Your task to perform on an android device: turn off airplane mode Image 0: 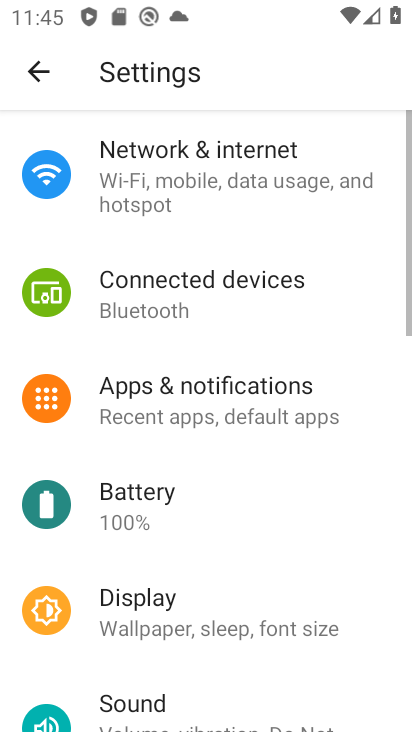
Step 0: drag from (378, 554) to (388, 259)
Your task to perform on an android device: turn off airplane mode Image 1: 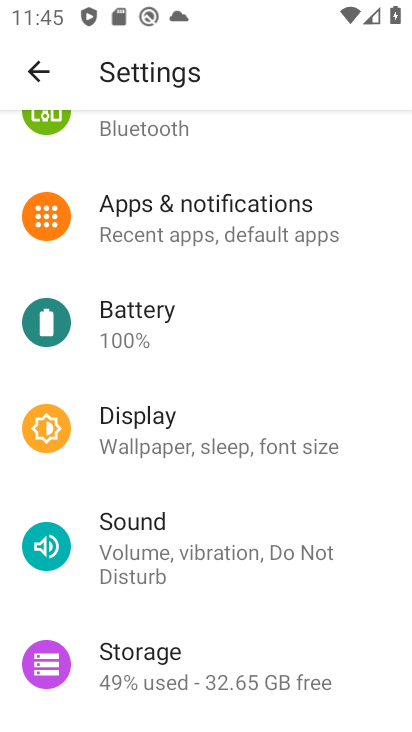
Step 1: drag from (335, 345) to (316, 671)
Your task to perform on an android device: turn off airplane mode Image 2: 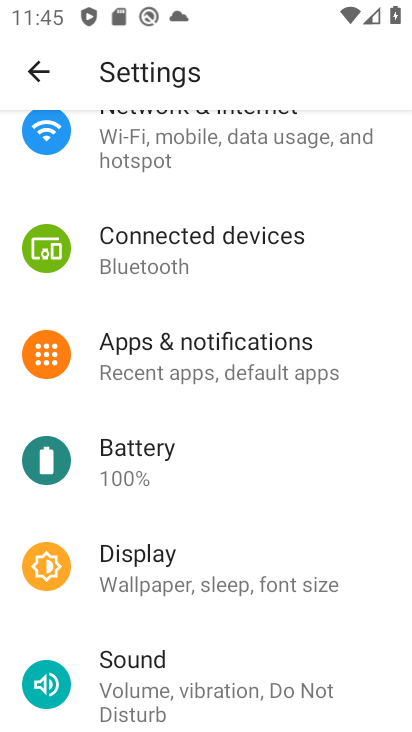
Step 2: drag from (274, 200) to (229, 550)
Your task to perform on an android device: turn off airplane mode Image 3: 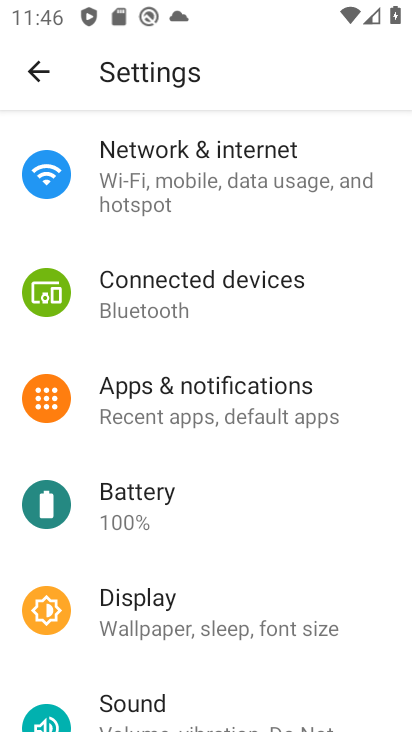
Step 3: click (246, 192)
Your task to perform on an android device: turn off airplane mode Image 4: 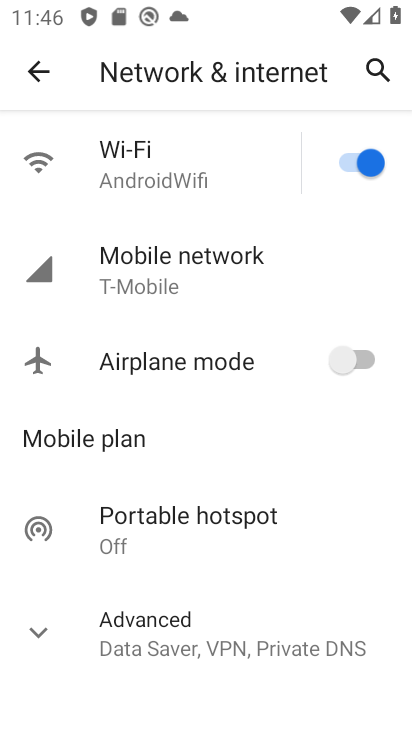
Step 4: task complete